Your task to perform on an android device: Go to Google maps Image 0: 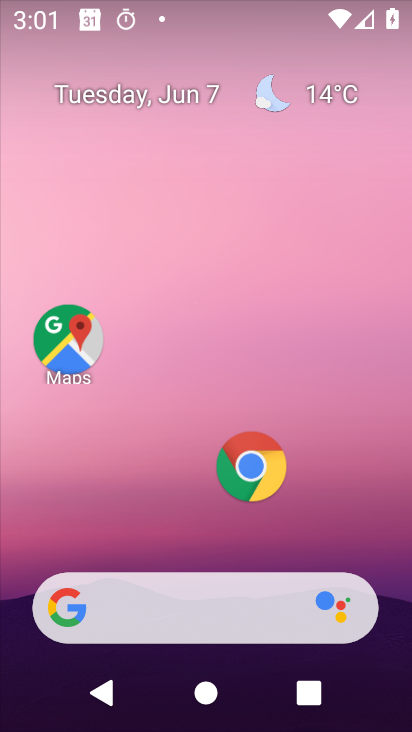
Step 0: click (82, 341)
Your task to perform on an android device: Go to Google maps Image 1: 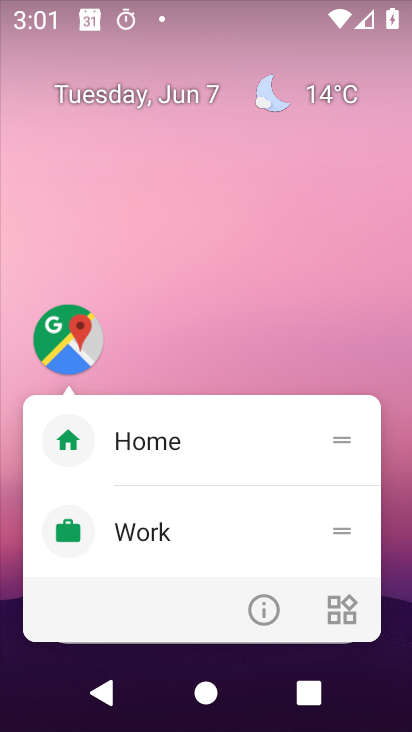
Step 1: click (73, 345)
Your task to perform on an android device: Go to Google maps Image 2: 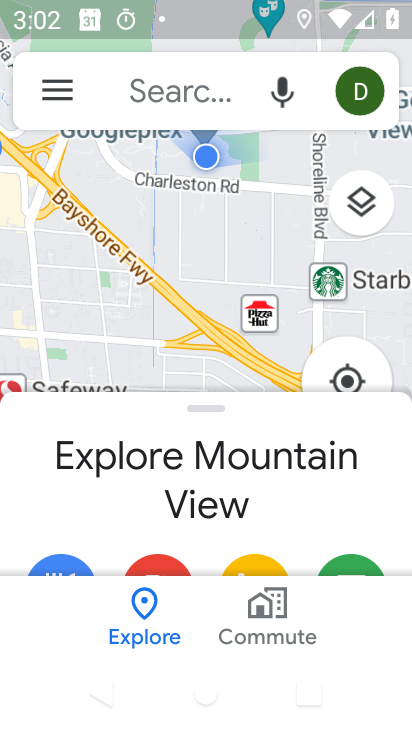
Step 2: task complete